Your task to perform on an android device: Open eBay Image 0: 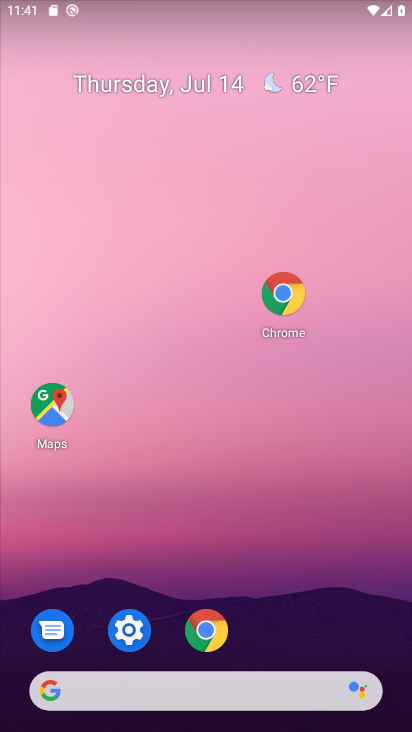
Step 0: drag from (257, 643) to (202, 213)
Your task to perform on an android device: Open eBay Image 1: 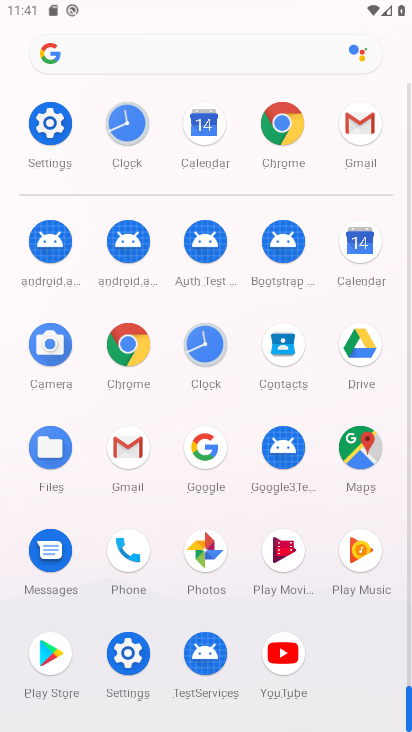
Step 1: click (291, 136)
Your task to perform on an android device: Open eBay Image 2: 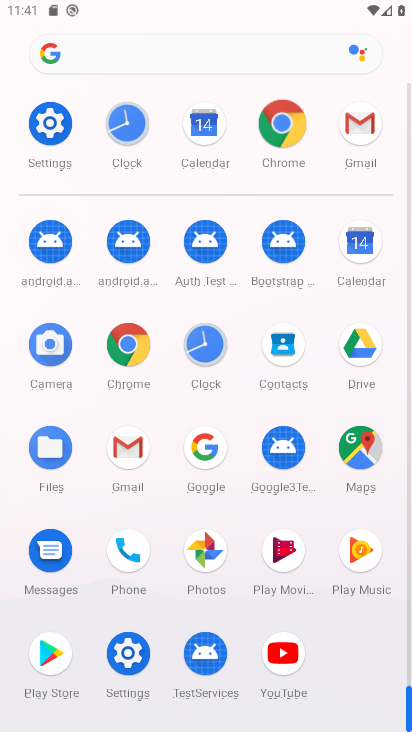
Step 2: click (291, 136)
Your task to perform on an android device: Open eBay Image 3: 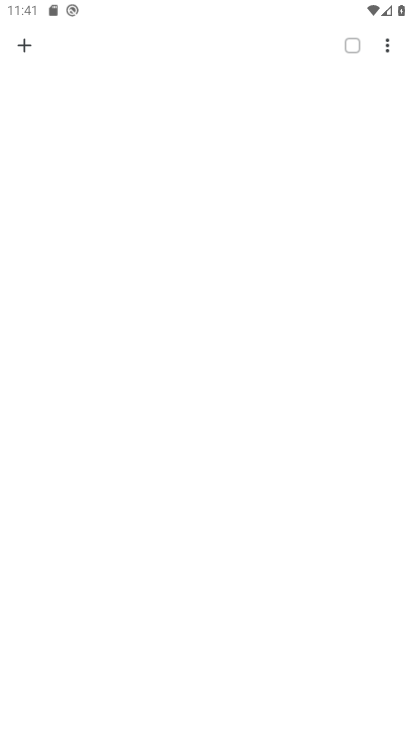
Step 3: click (23, 43)
Your task to perform on an android device: Open eBay Image 4: 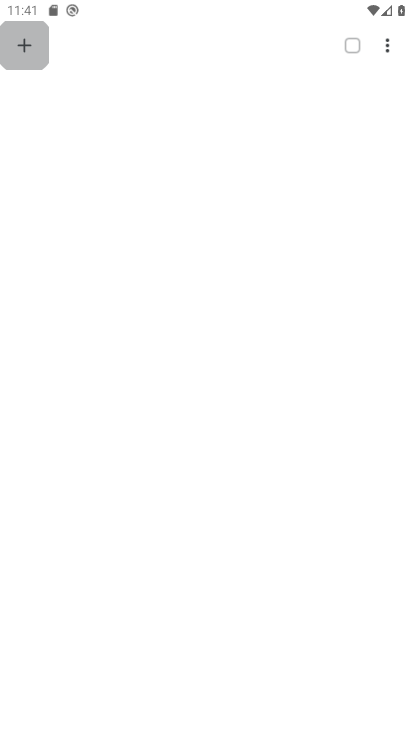
Step 4: click (23, 43)
Your task to perform on an android device: Open eBay Image 5: 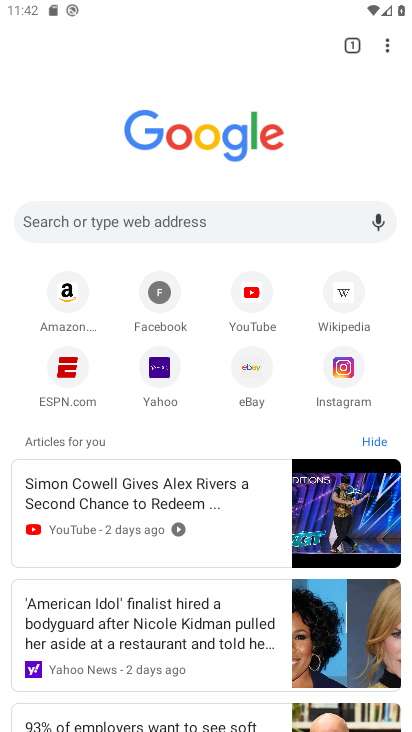
Step 5: click (257, 374)
Your task to perform on an android device: Open eBay Image 6: 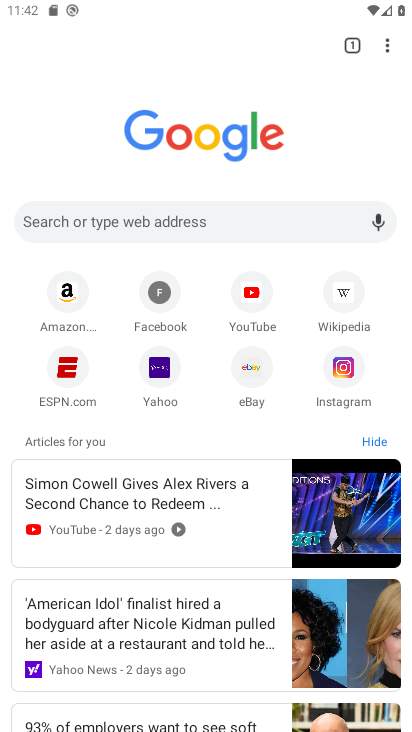
Step 6: click (257, 374)
Your task to perform on an android device: Open eBay Image 7: 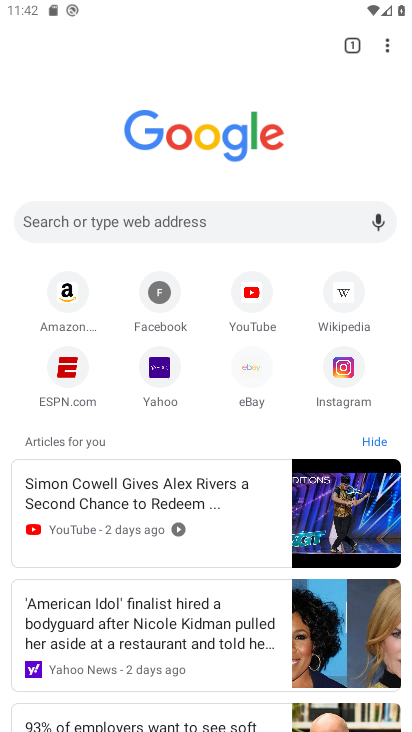
Step 7: click (257, 374)
Your task to perform on an android device: Open eBay Image 8: 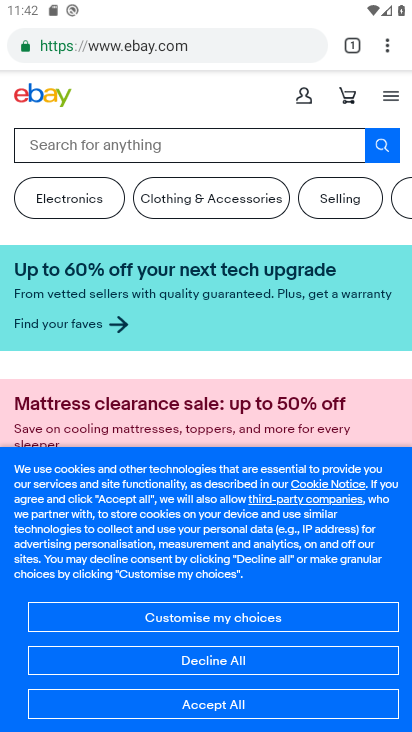
Step 8: task complete